Your task to perform on an android device: Check the weather Image 0: 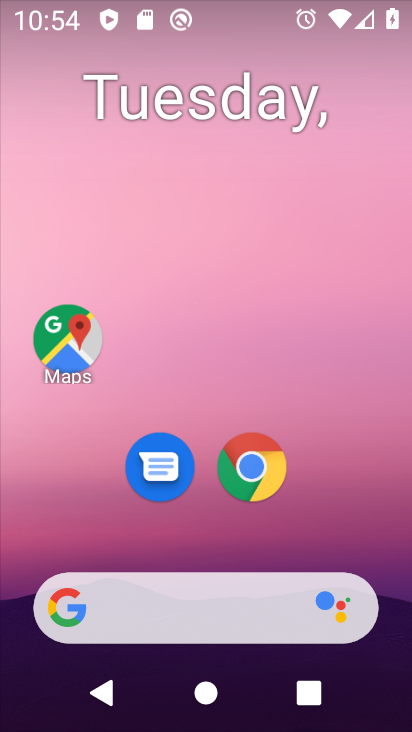
Step 0: drag from (9, 449) to (407, 288)
Your task to perform on an android device: Check the weather Image 1: 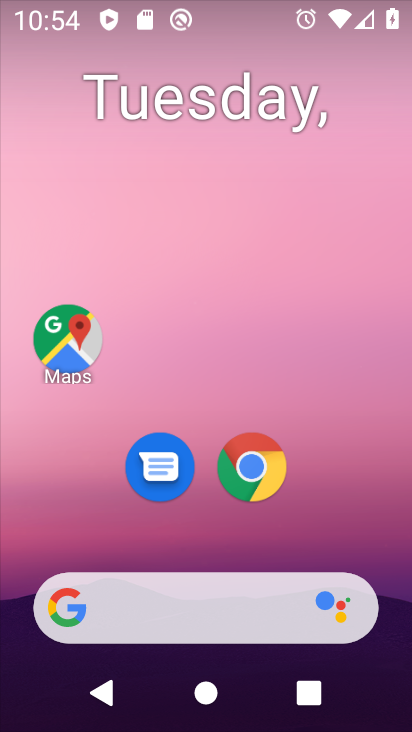
Step 1: drag from (0, 460) to (394, 288)
Your task to perform on an android device: Check the weather Image 2: 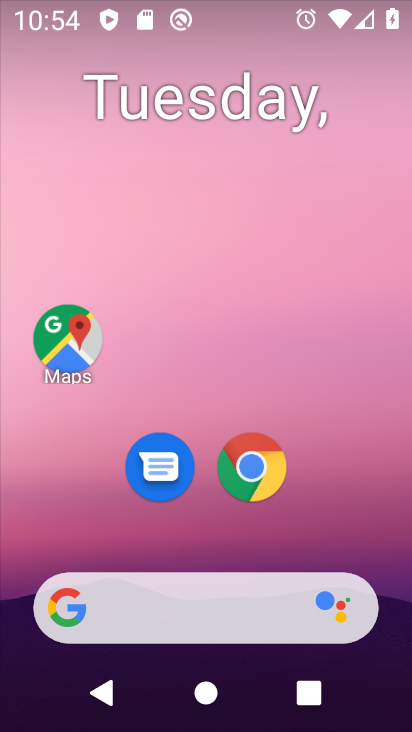
Step 2: drag from (0, 456) to (334, 284)
Your task to perform on an android device: Check the weather Image 3: 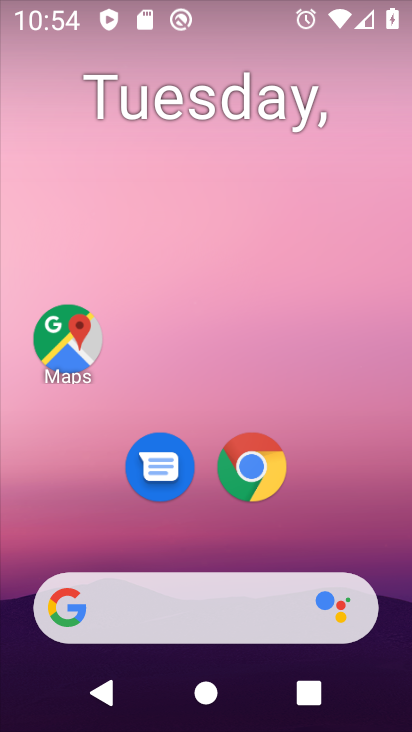
Step 3: click (123, 618)
Your task to perform on an android device: Check the weather Image 4: 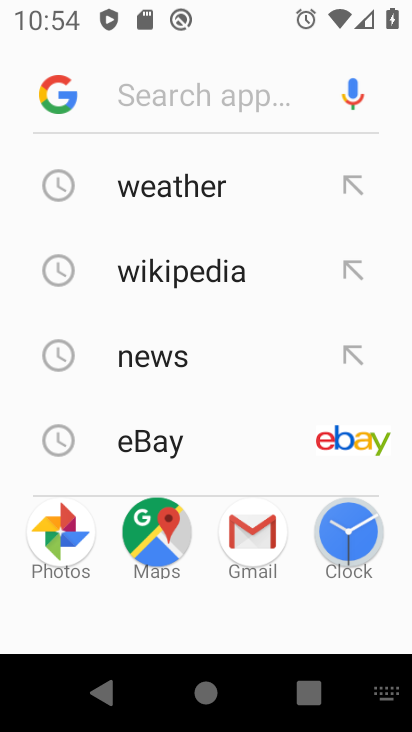
Step 4: click (209, 204)
Your task to perform on an android device: Check the weather Image 5: 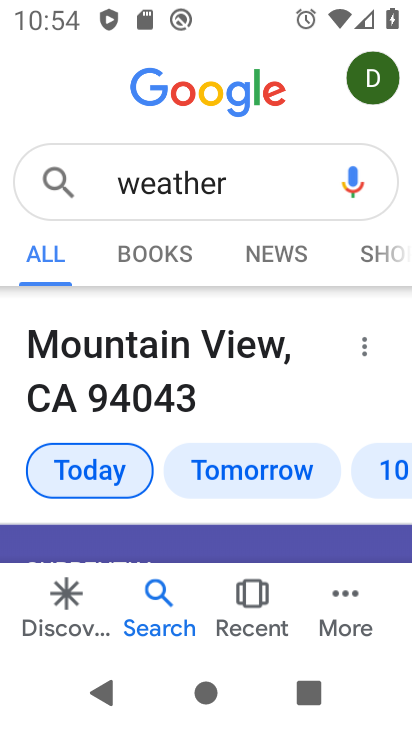
Step 5: task complete